Your task to perform on an android device: turn off sleep mode Image 0: 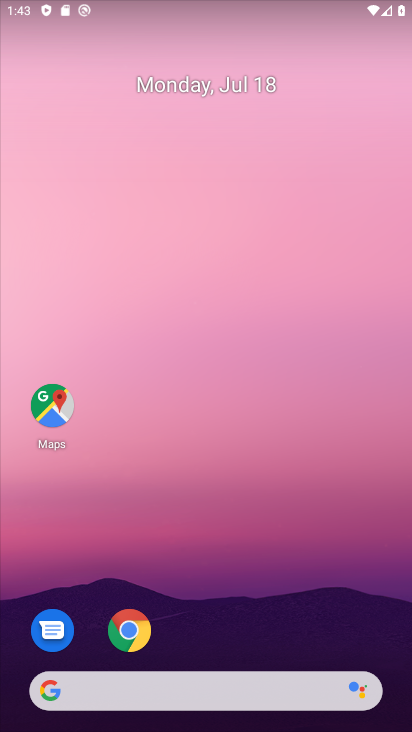
Step 0: click (251, 491)
Your task to perform on an android device: turn off sleep mode Image 1: 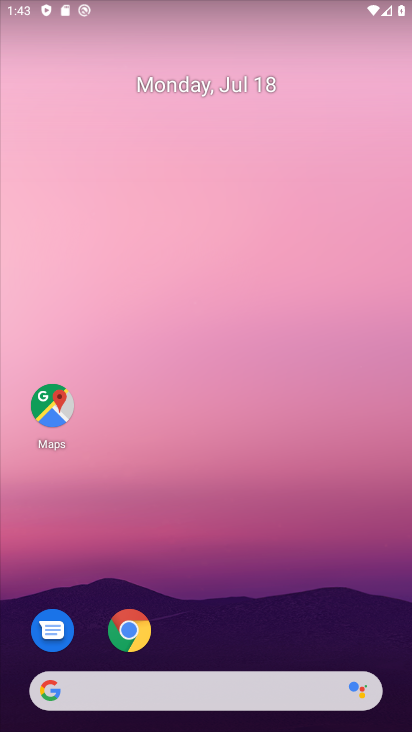
Step 1: drag from (208, 649) to (271, 43)
Your task to perform on an android device: turn off sleep mode Image 2: 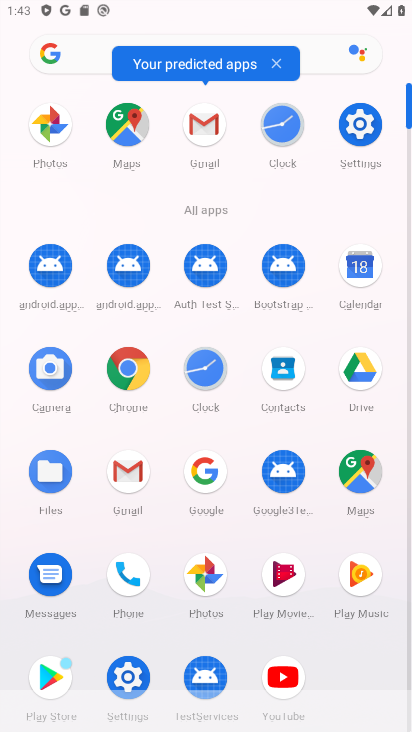
Step 2: click (124, 678)
Your task to perform on an android device: turn off sleep mode Image 3: 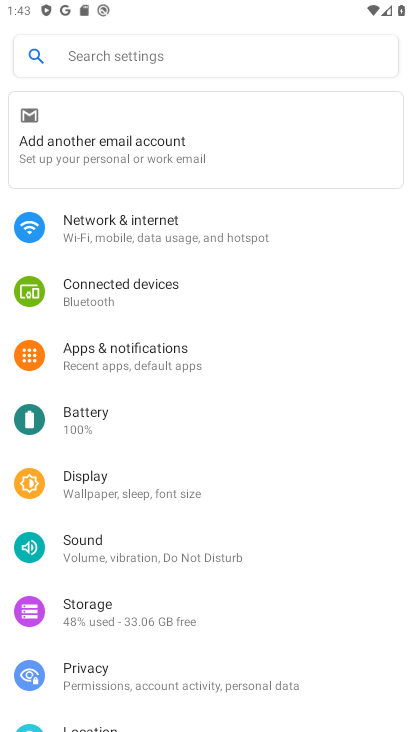
Step 3: click (116, 490)
Your task to perform on an android device: turn off sleep mode Image 4: 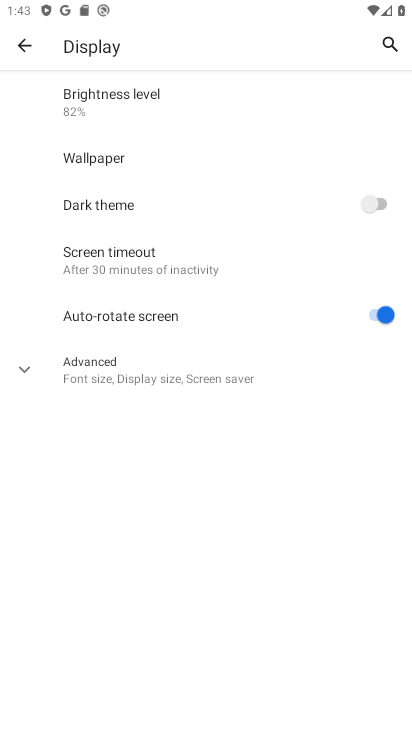
Step 4: click (151, 377)
Your task to perform on an android device: turn off sleep mode Image 5: 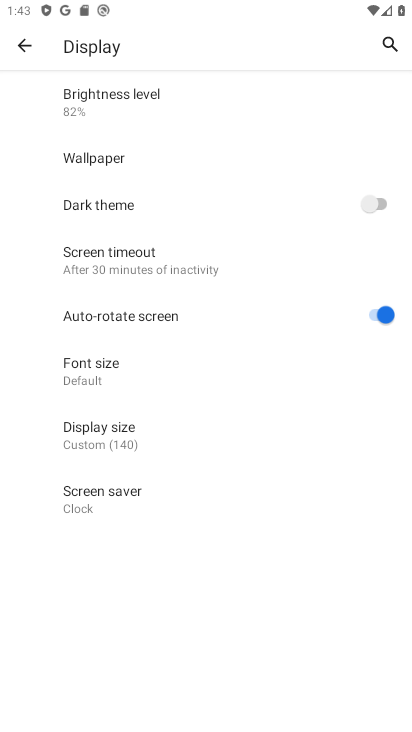
Step 5: task complete